Your task to perform on an android device: turn notification dots off Image 0: 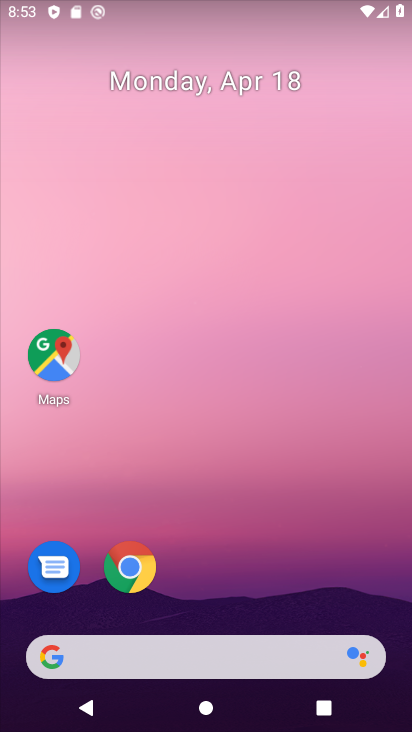
Step 0: drag from (269, 576) to (272, 100)
Your task to perform on an android device: turn notification dots off Image 1: 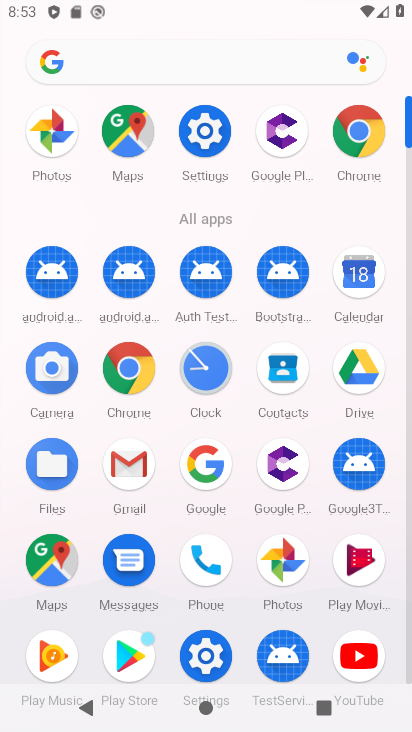
Step 1: click (201, 127)
Your task to perform on an android device: turn notification dots off Image 2: 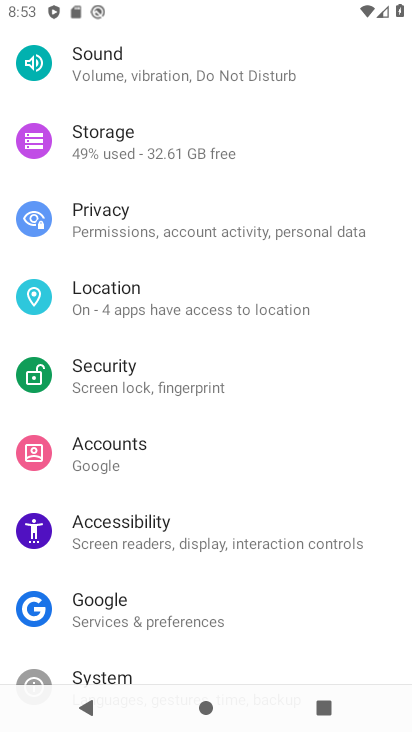
Step 2: drag from (281, 601) to (276, 227)
Your task to perform on an android device: turn notification dots off Image 3: 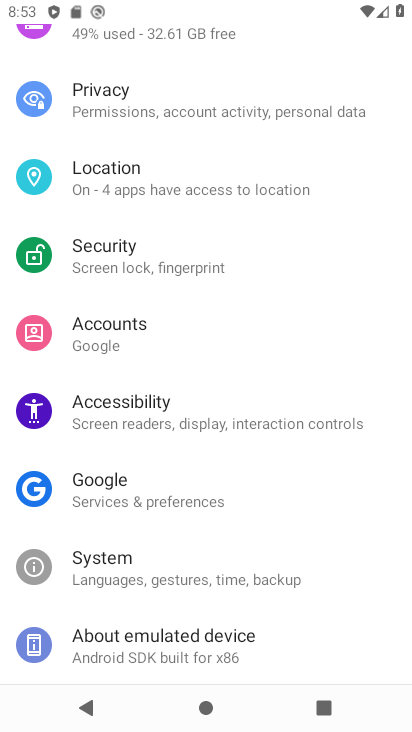
Step 3: drag from (276, 143) to (256, 562)
Your task to perform on an android device: turn notification dots off Image 4: 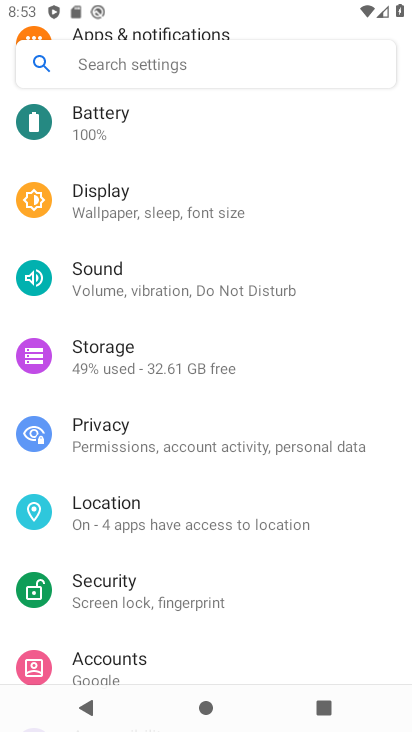
Step 4: drag from (185, 159) to (178, 505)
Your task to perform on an android device: turn notification dots off Image 5: 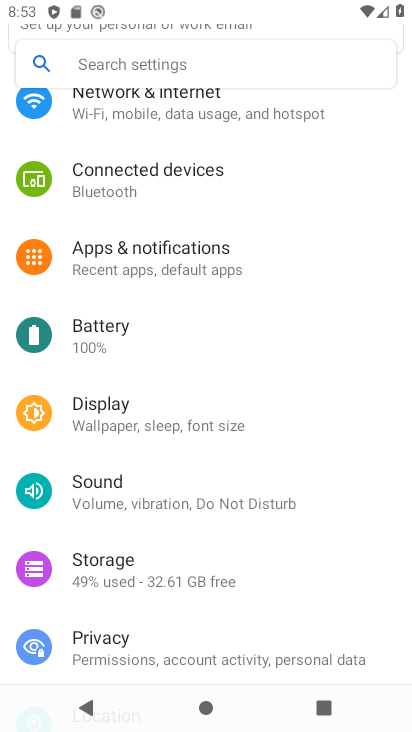
Step 5: click (196, 266)
Your task to perform on an android device: turn notification dots off Image 6: 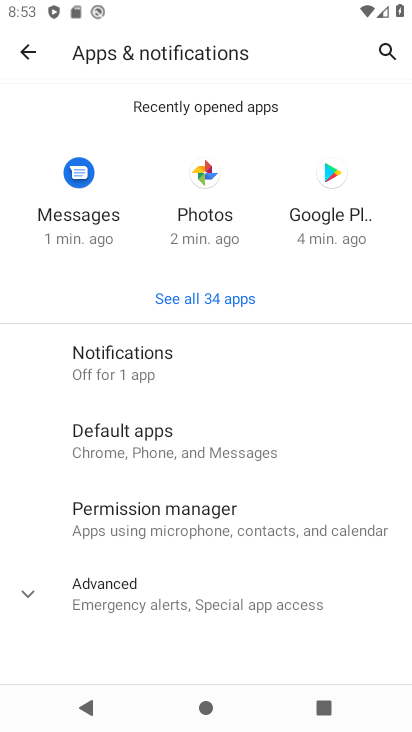
Step 6: click (167, 367)
Your task to perform on an android device: turn notification dots off Image 7: 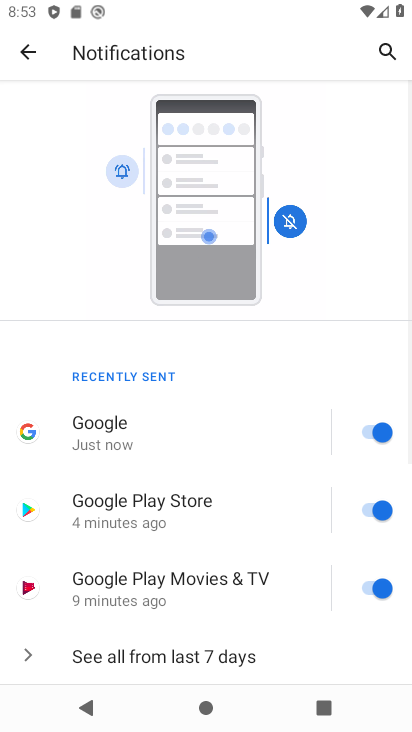
Step 7: drag from (253, 606) to (259, 193)
Your task to perform on an android device: turn notification dots off Image 8: 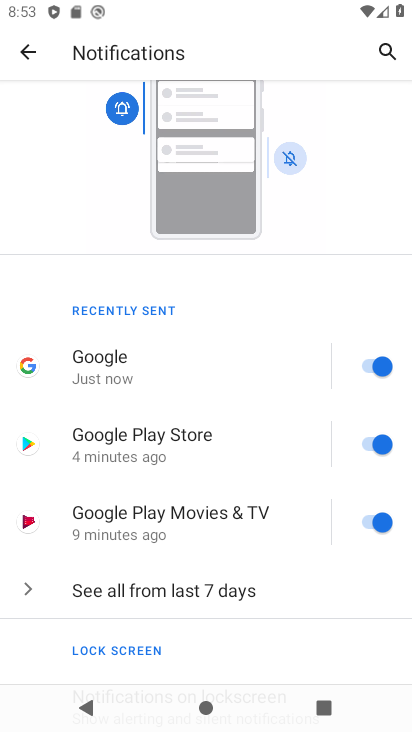
Step 8: drag from (232, 522) to (239, 161)
Your task to perform on an android device: turn notification dots off Image 9: 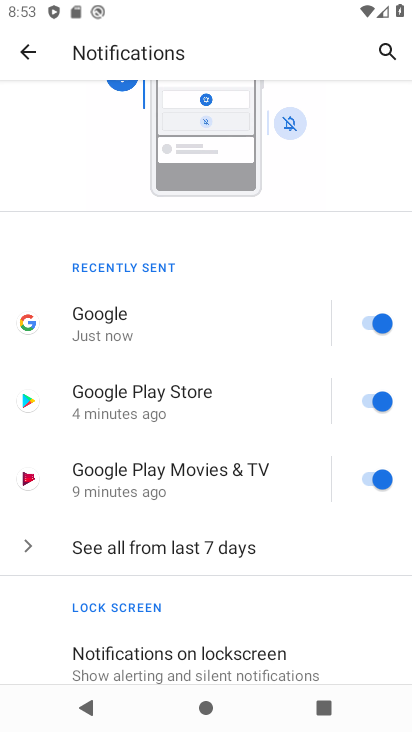
Step 9: drag from (218, 331) to (218, 167)
Your task to perform on an android device: turn notification dots off Image 10: 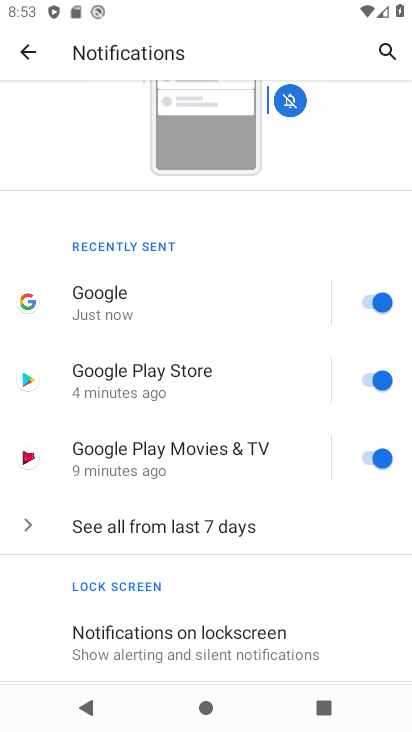
Step 10: drag from (223, 436) to (222, 165)
Your task to perform on an android device: turn notification dots off Image 11: 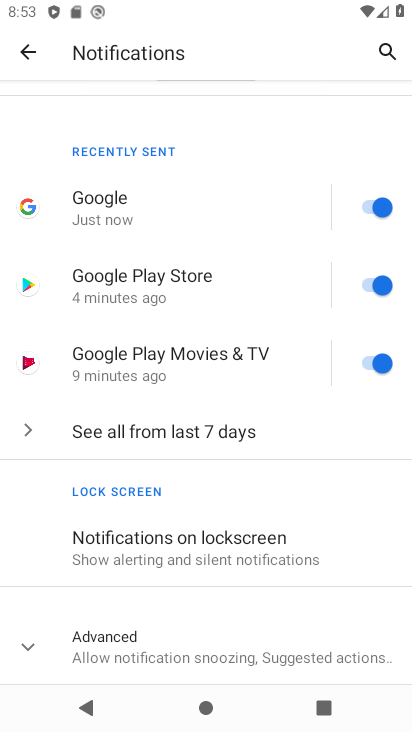
Step 11: click (236, 649)
Your task to perform on an android device: turn notification dots off Image 12: 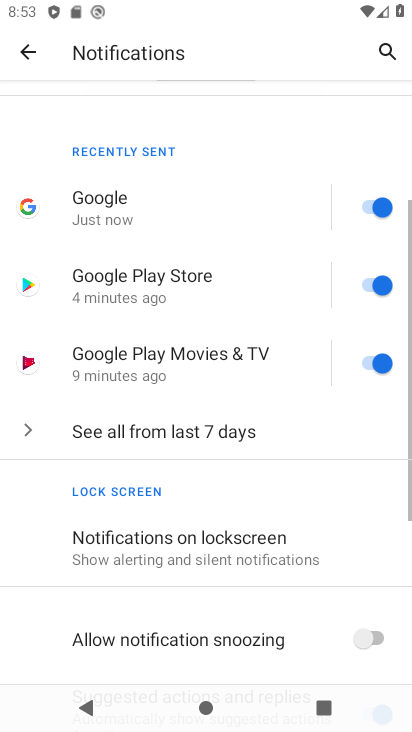
Step 12: drag from (249, 621) to (243, 222)
Your task to perform on an android device: turn notification dots off Image 13: 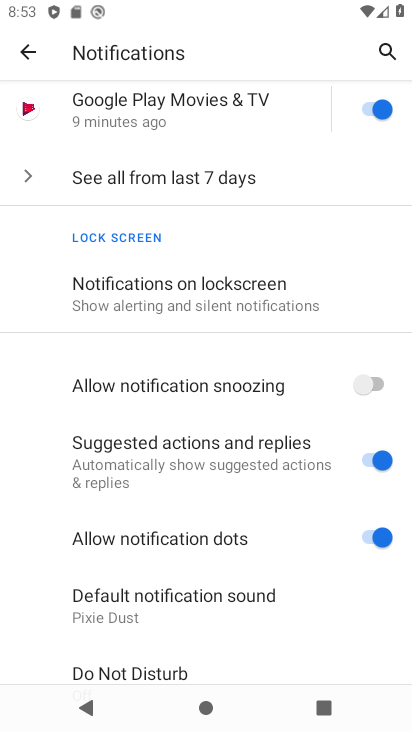
Step 13: click (364, 539)
Your task to perform on an android device: turn notification dots off Image 14: 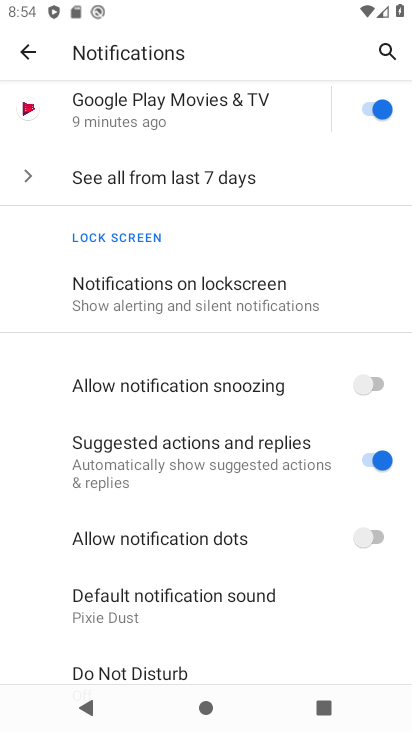
Step 14: task complete